Your task to perform on an android device: Open Google Chrome and open the bookmarks view Image 0: 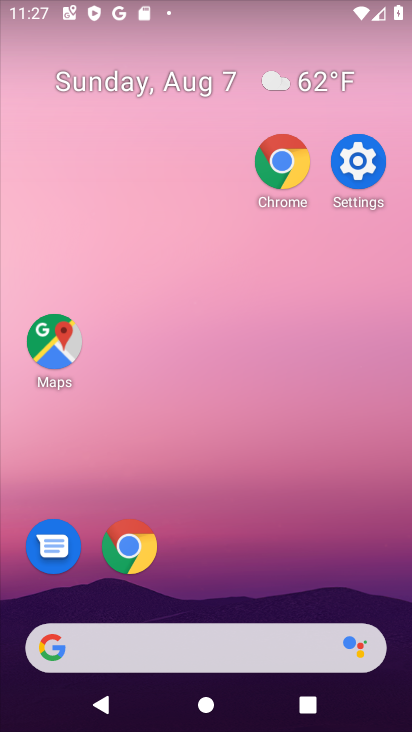
Step 0: drag from (226, 405) to (204, 261)
Your task to perform on an android device: Open Google Chrome and open the bookmarks view Image 1: 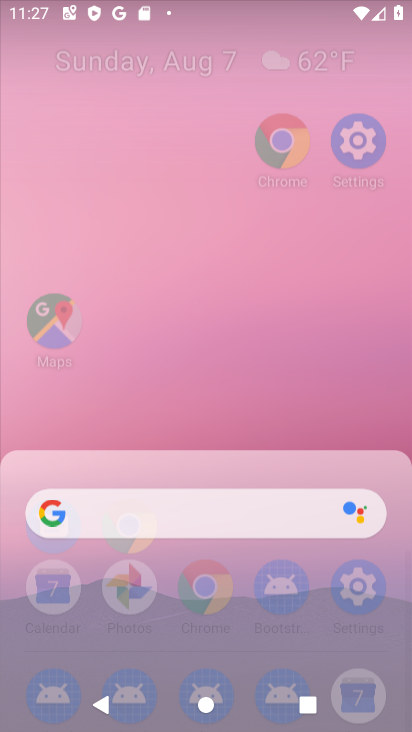
Step 1: drag from (248, 499) to (251, 265)
Your task to perform on an android device: Open Google Chrome and open the bookmarks view Image 2: 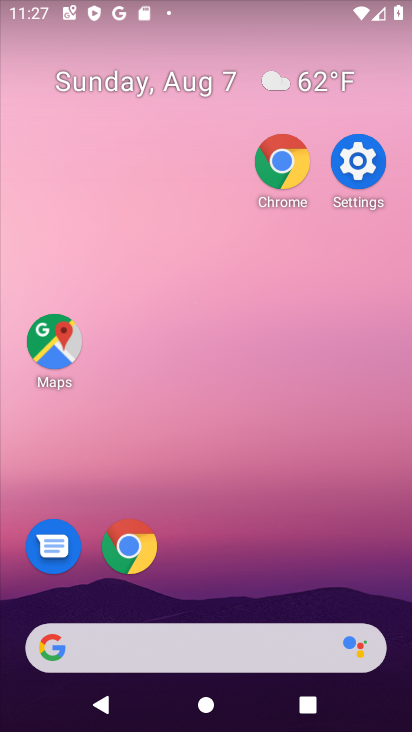
Step 2: drag from (305, 619) to (305, 191)
Your task to perform on an android device: Open Google Chrome and open the bookmarks view Image 3: 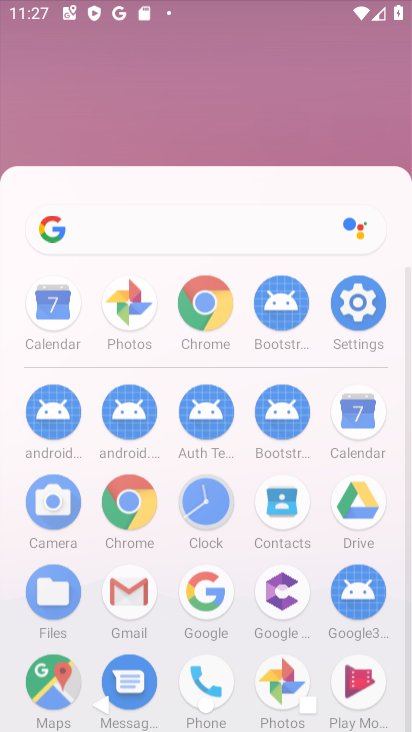
Step 3: drag from (253, 495) to (250, 188)
Your task to perform on an android device: Open Google Chrome and open the bookmarks view Image 4: 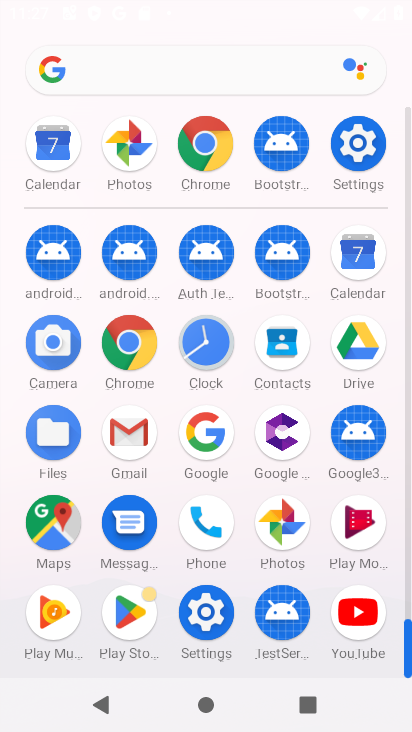
Step 4: drag from (258, 340) to (256, 74)
Your task to perform on an android device: Open Google Chrome and open the bookmarks view Image 5: 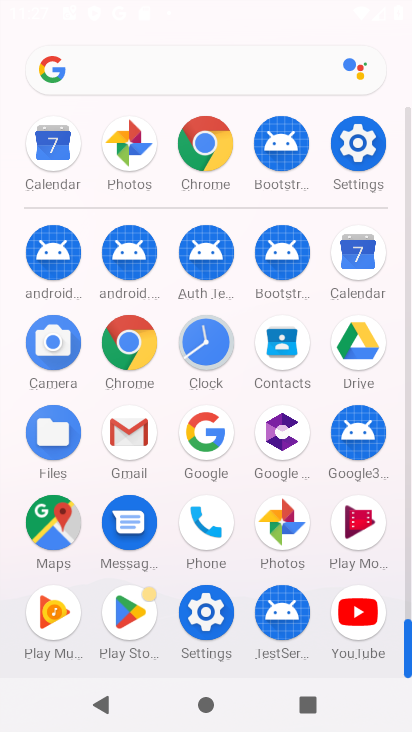
Step 5: click (203, 146)
Your task to perform on an android device: Open Google Chrome and open the bookmarks view Image 6: 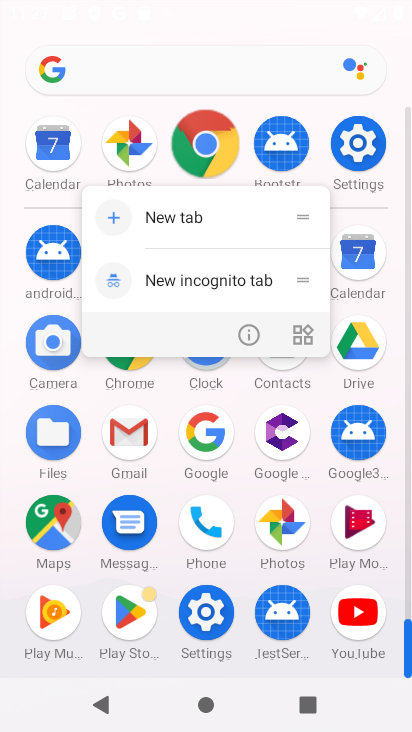
Step 6: click (209, 151)
Your task to perform on an android device: Open Google Chrome and open the bookmarks view Image 7: 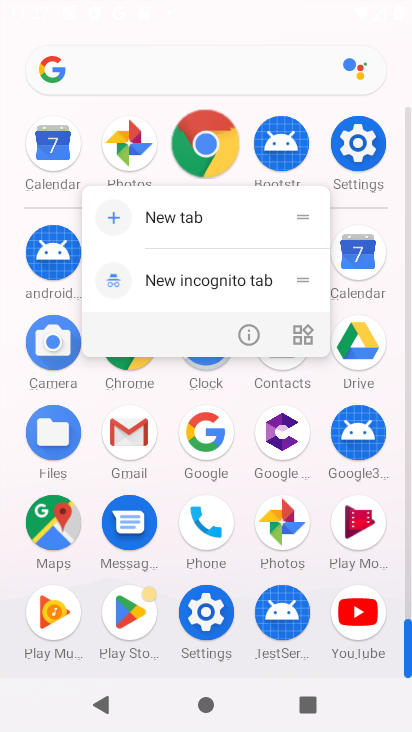
Step 7: click (208, 150)
Your task to perform on an android device: Open Google Chrome and open the bookmarks view Image 8: 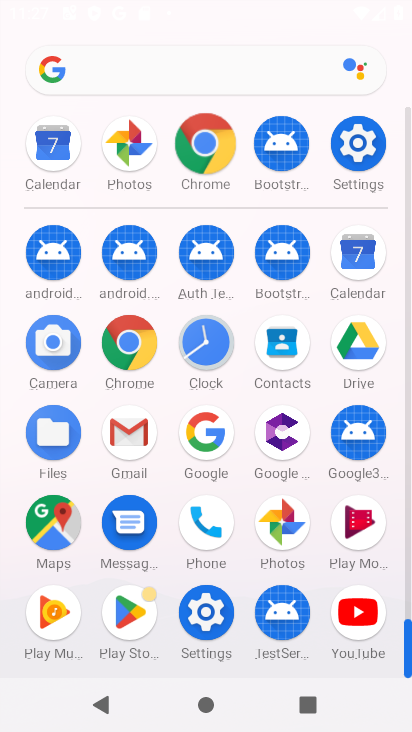
Step 8: click (208, 150)
Your task to perform on an android device: Open Google Chrome and open the bookmarks view Image 9: 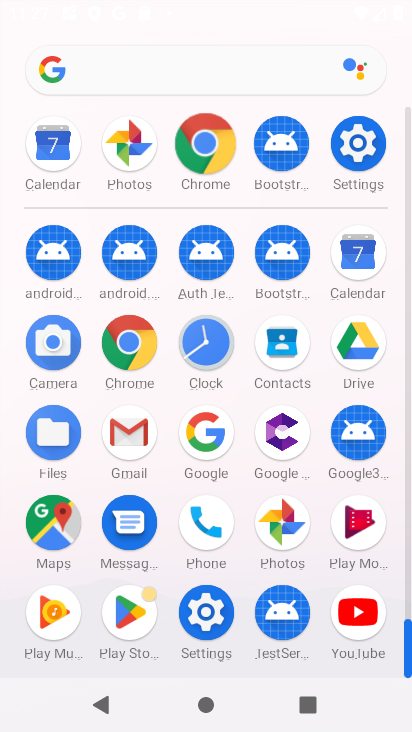
Step 9: click (208, 150)
Your task to perform on an android device: Open Google Chrome and open the bookmarks view Image 10: 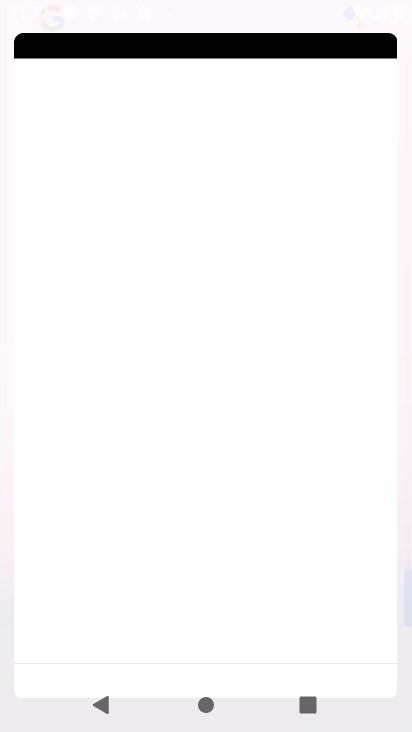
Step 10: click (208, 150)
Your task to perform on an android device: Open Google Chrome and open the bookmarks view Image 11: 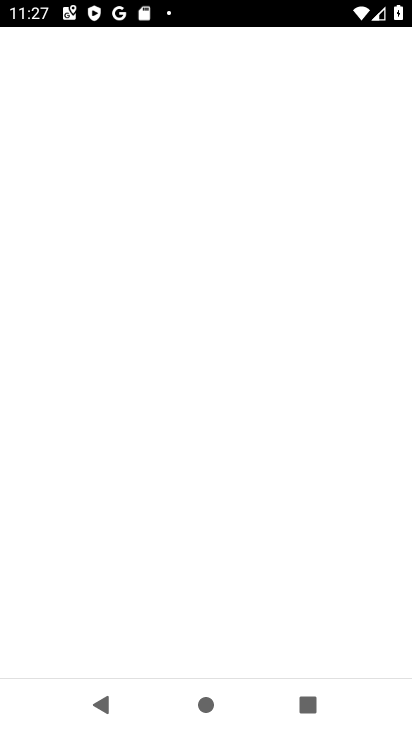
Step 11: click (212, 145)
Your task to perform on an android device: Open Google Chrome and open the bookmarks view Image 12: 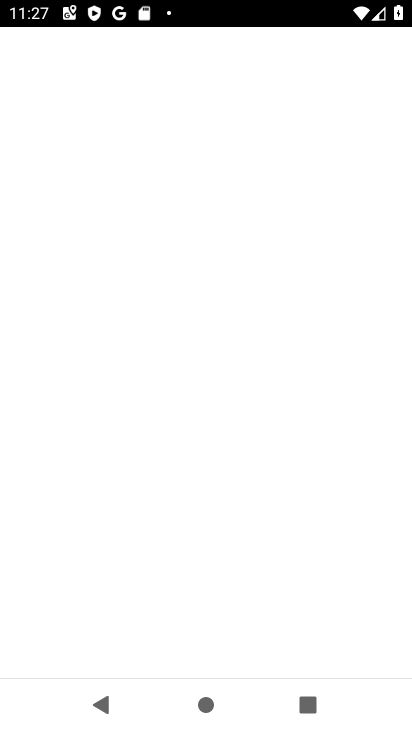
Step 12: click (213, 145)
Your task to perform on an android device: Open Google Chrome and open the bookmarks view Image 13: 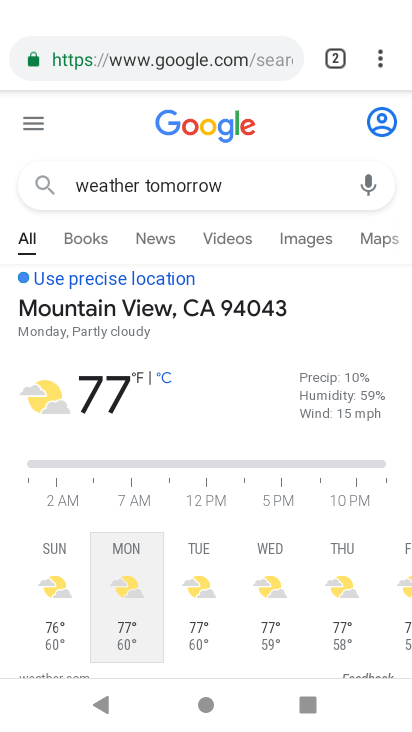
Step 13: drag from (381, 47) to (180, 225)
Your task to perform on an android device: Open Google Chrome and open the bookmarks view Image 14: 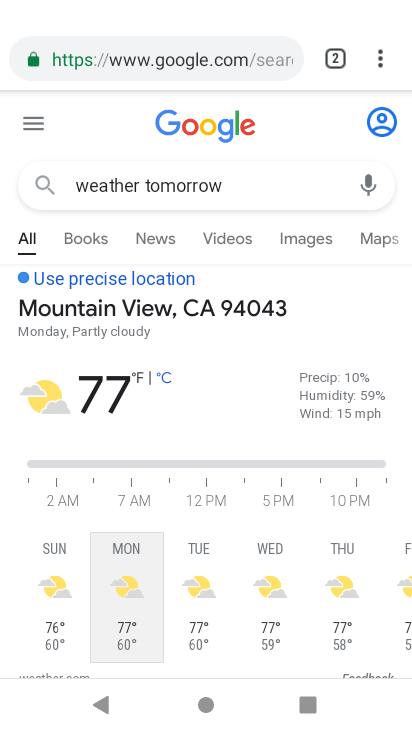
Step 14: click (182, 223)
Your task to perform on an android device: Open Google Chrome and open the bookmarks view Image 15: 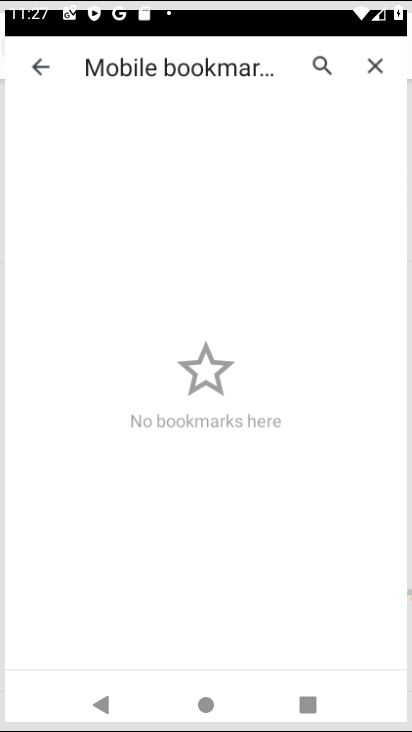
Step 15: click (184, 223)
Your task to perform on an android device: Open Google Chrome and open the bookmarks view Image 16: 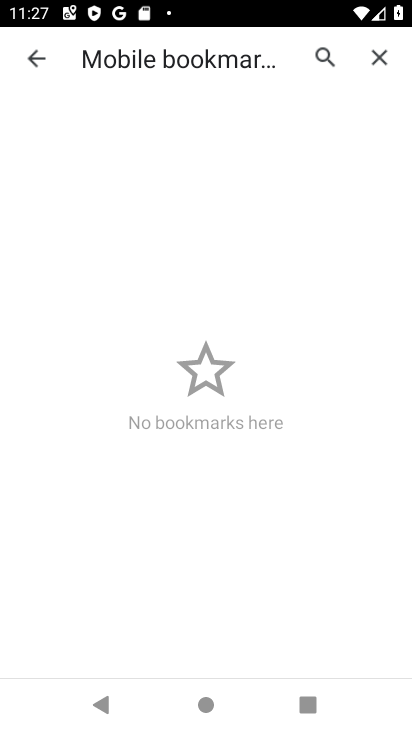
Step 16: click (36, 57)
Your task to perform on an android device: Open Google Chrome and open the bookmarks view Image 17: 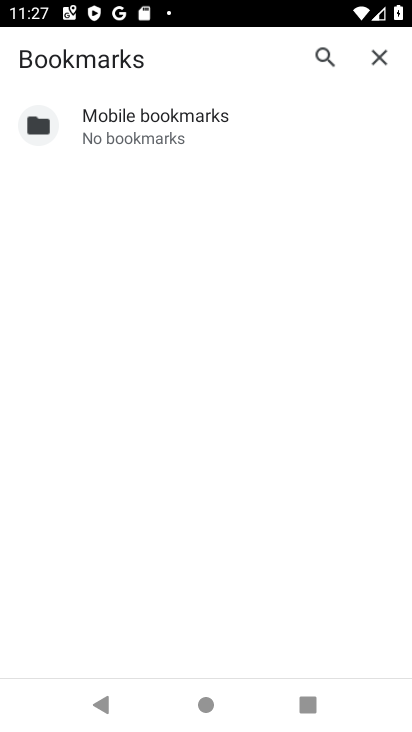
Step 17: task complete